Your task to perform on an android device: turn off location Image 0: 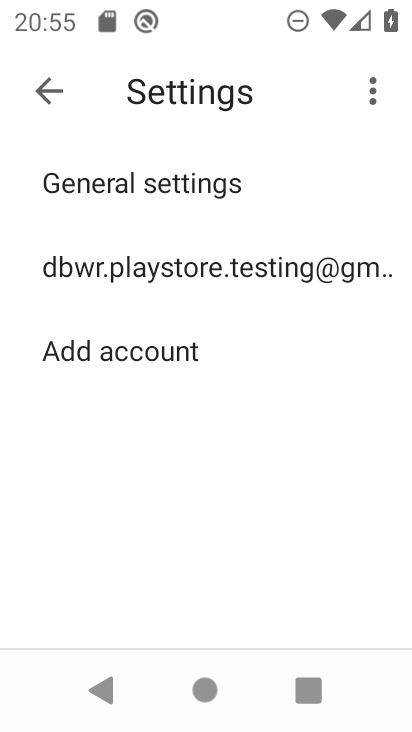
Step 0: press home button
Your task to perform on an android device: turn off location Image 1: 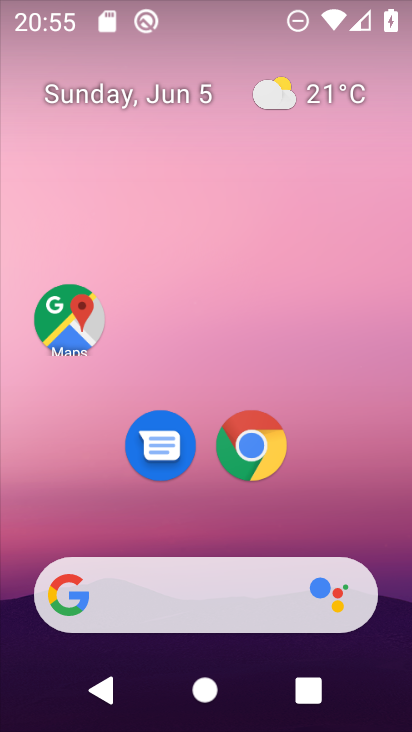
Step 1: drag from (340, 460) to (339, 102)
Your task to perform on an android device: turn off location Image 2: 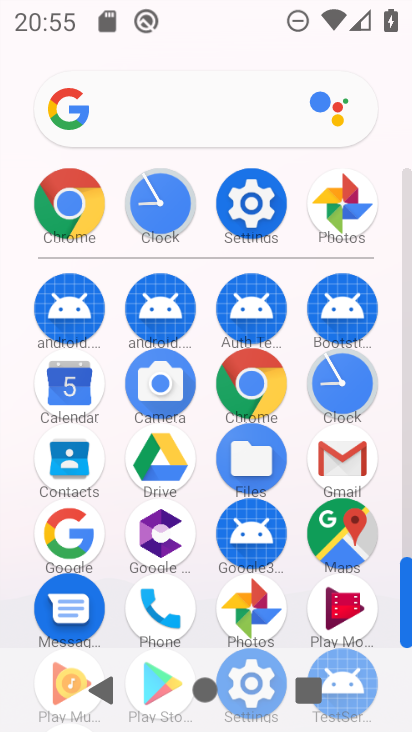
Step 2: click (258, 193)
Your task to perform on an android device: turn off location Image 3: 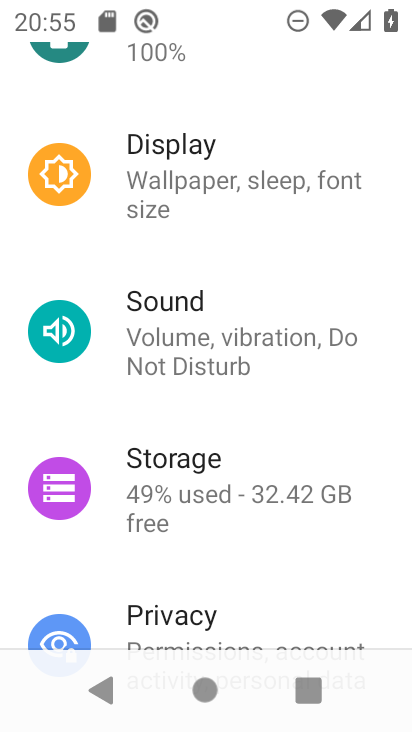
Step 3: drag from (77, 402) to (233, 25)
Your task to perform on an android device: turn off location Image 4: 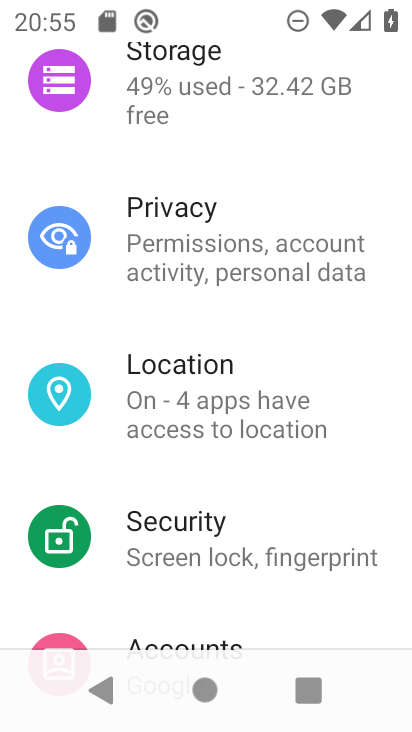
Step 4: click (230, 360)
Your task to perform on an android device: turn off location Image 5: 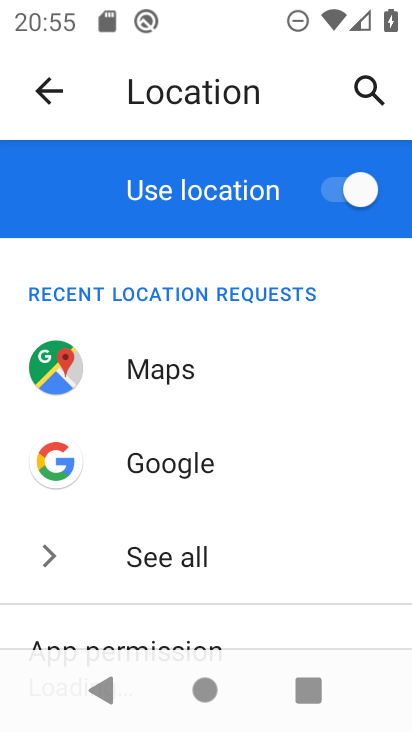
Step 5: click (358, 197)
Your task to perform on an android device: turn off location Image 6: 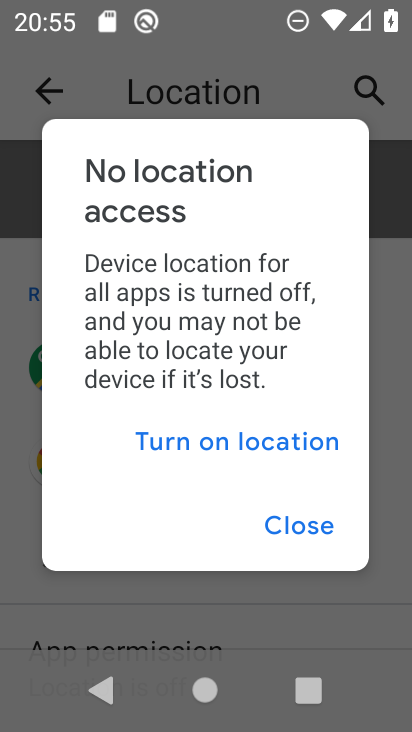
Step 6: click (310, 533)
Your task to perform on an android device: turn off location Image 7: 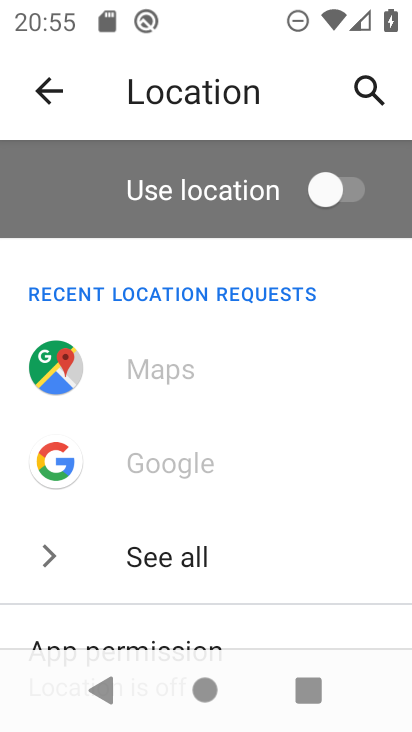
Step 7: task complete